Your task to perform on an android device: move an email to a new category in the gmail app Image 0: 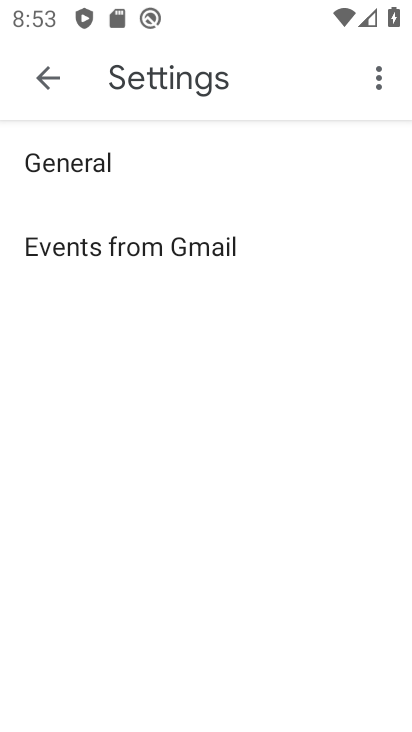
Step 0: press home button
Your task to perform on an android device: move an email to a new category in the gmail app Image 1: 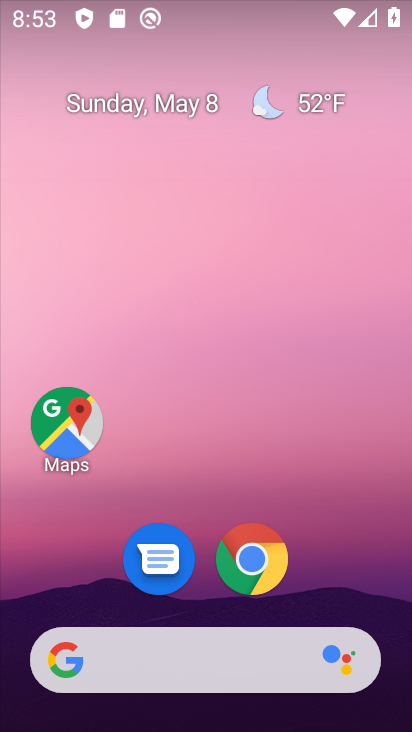
Step 1: drag from (234, 480) to (201, 10)
Your task to perform on an android device: move an email to a new category in the gmail app Image 2: 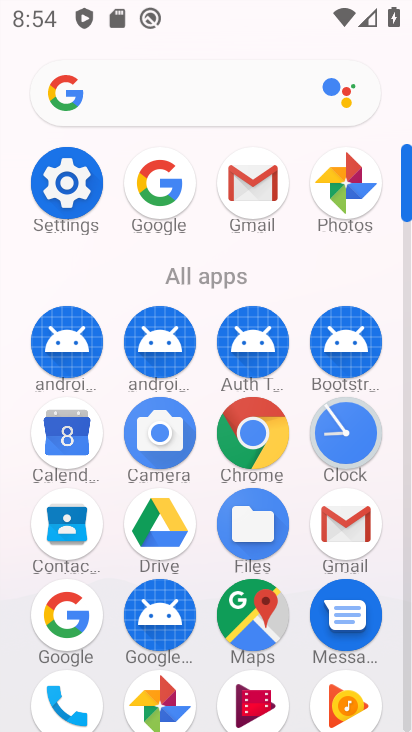
Step 2: click (341, 525)
Your task to perform on an android device: move an email to a new category in the gmail app Image 3: 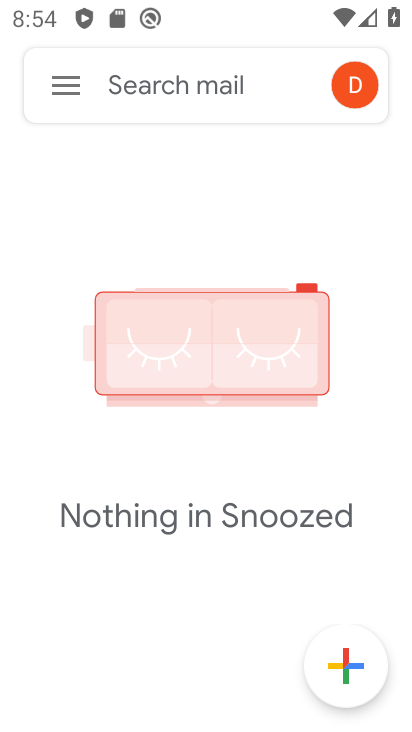
Step 3: click (54, 92)
Your task to perform on an android device: move an email to a new category in the gmail app Image 4: 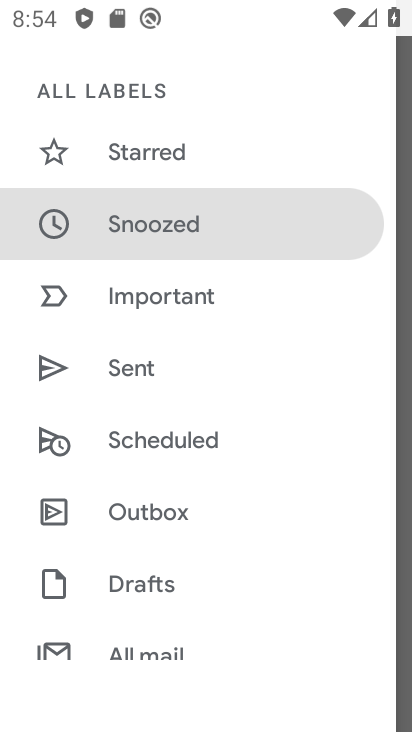
Step 4: drag from (188, 195) to (221, 644)
Your task to perform on an android device: move an email to a new category in the gmail app Image 5: 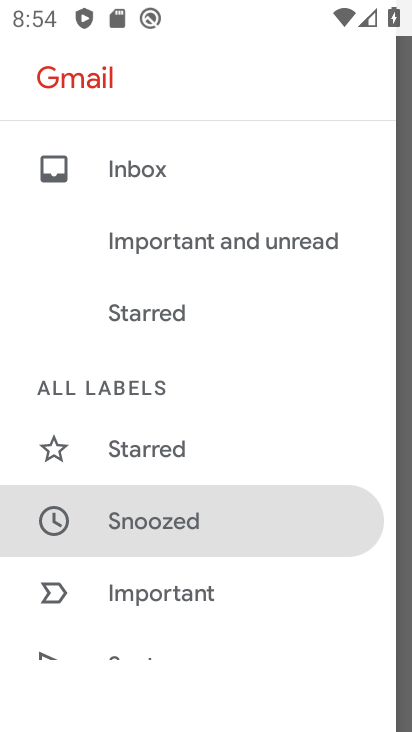
Step 5: click (157, 162)
Your task to perform on an android device: move an email to a new category in the gmail app Image 6: 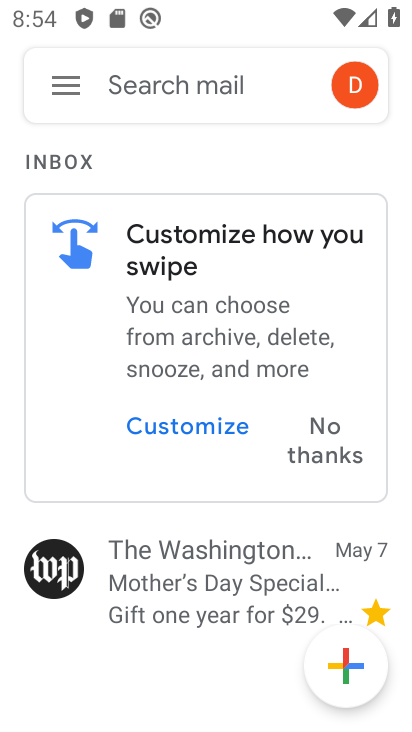
Step 6: click (202, 558)
Your task to perform on an android device: move an email to a new category in the gmail app Image 7: 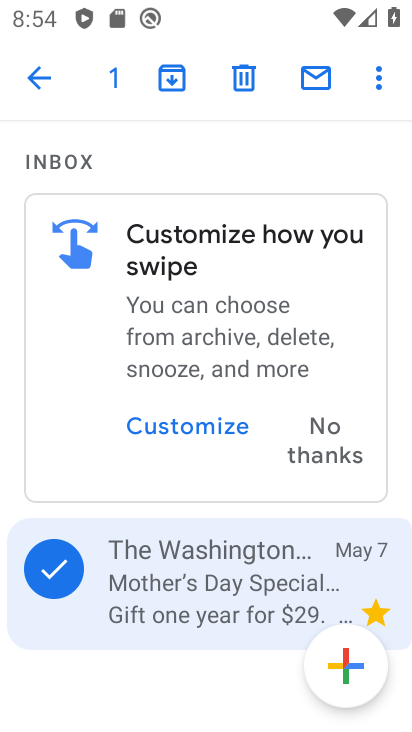
Step 7: click (395, 72)
Your task to perform on an android device: move an email to a new category in the gmail app Image 8: 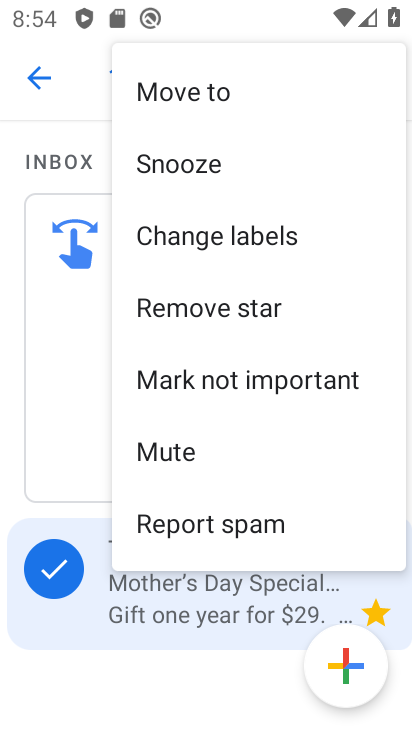
Step 8: click (226, 116)
Your task to perform on an android device: move an email to a new category in the gmail app Image 9: 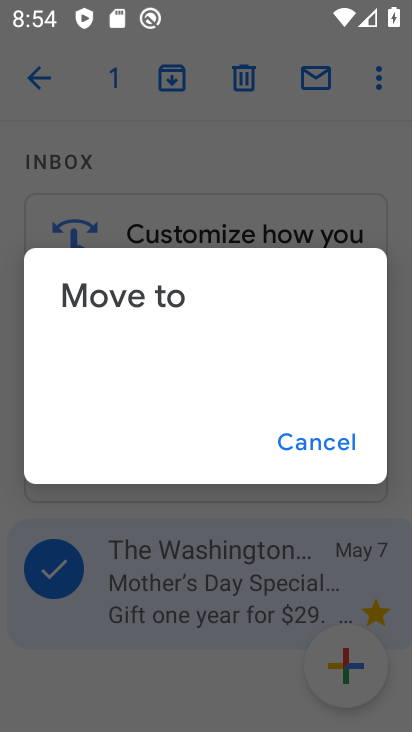
Step 9: click (265, 365)
Your task to perform on an android device: move an email to a new category in the gmail app Image 10: 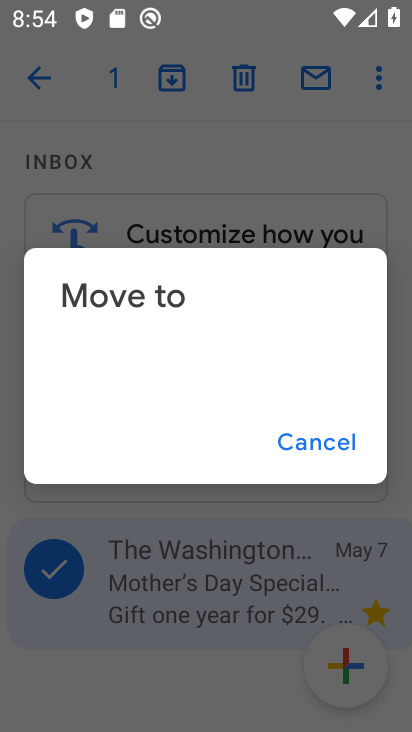
Step 10: click (331, 452)
Your task to perform on an android device: move an email to a new category in the gmail app Image 11: 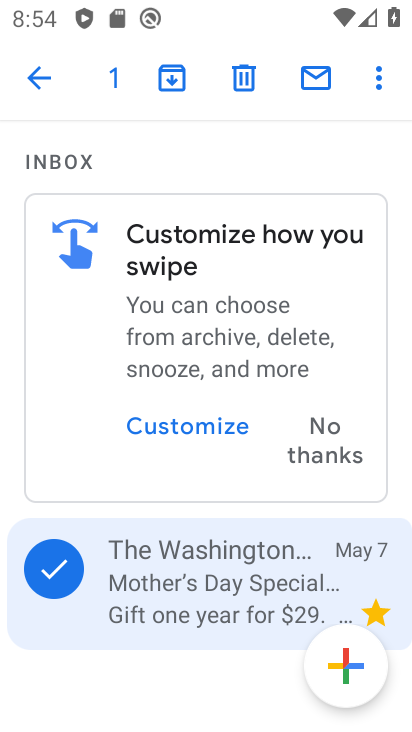
Step 11: drag from (259, 558) to (220, 89)
Your task to perform on an android device: move an email to a new category in the gmail app Image 12: 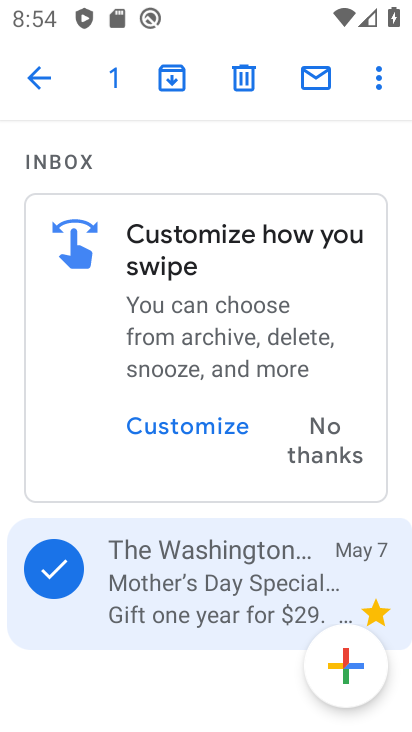
Step 12: click (34, 66)
Your task to perform on an android device: move an email to a new category in the gmail app Image 13: 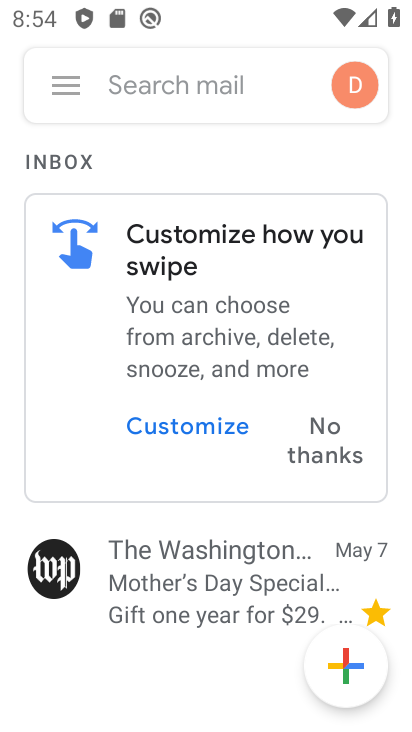
Step 13: click (35, 66)
Your task to perform on an android device: move an email to a new category in the gmail app Image 14: 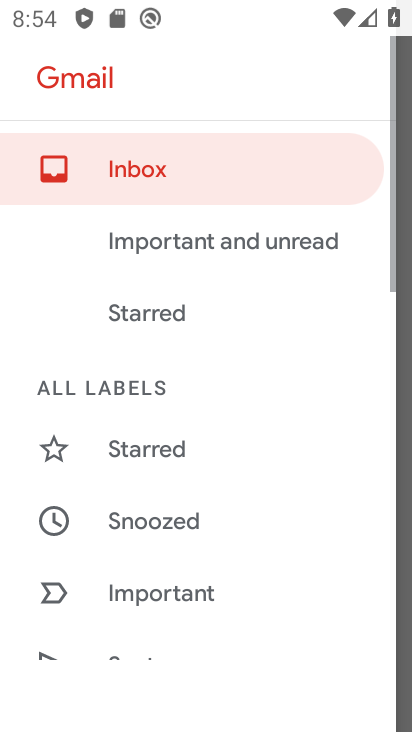
Step 14: drag from (241, 589) to (219, 168)
Your task to perform on an android device: move an email to a new category in the gmail app Image 15: 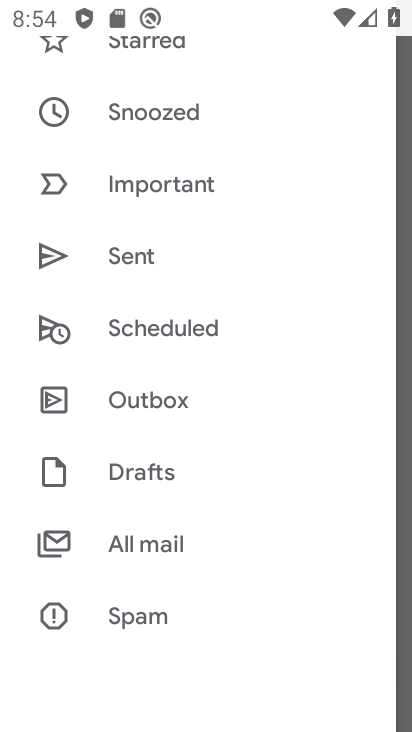
Step 15: click (174, 538)
Your task to perform on an android device: move an email to a new category in the gmail app Image 16: 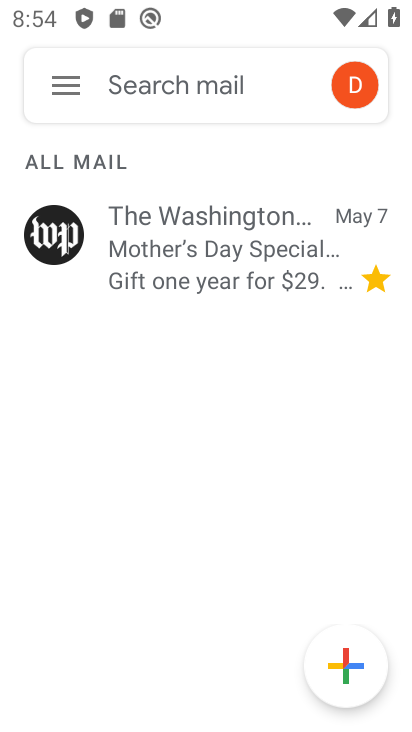
Step 16: click (185, 254)
Your task to perform on an android device: move an email to a new category in the gmail app Image 17: 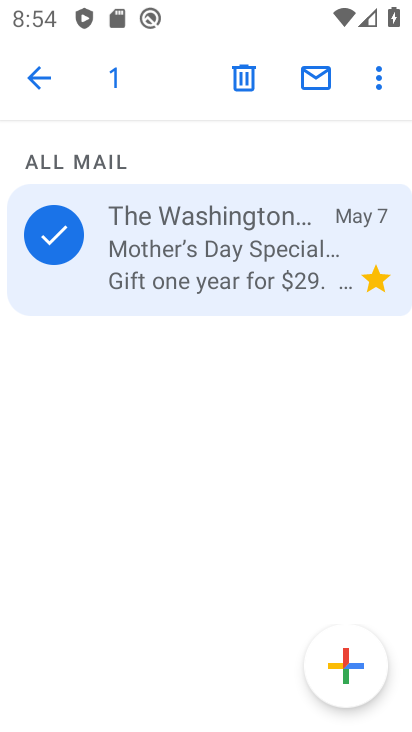
Step 17: click (372, 65)
Your task to perform on an android device: move an email to a new category in the gmail app Image 18: 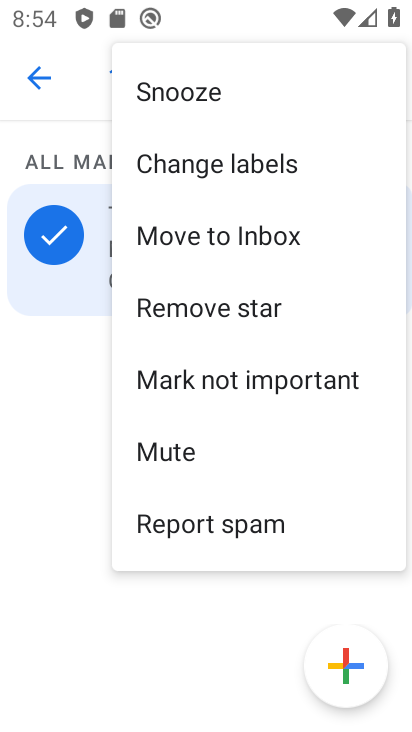
Step 18: click (192, 248)
Your task to perform on an android device: move an email to a new category in the gmail app Image 19: 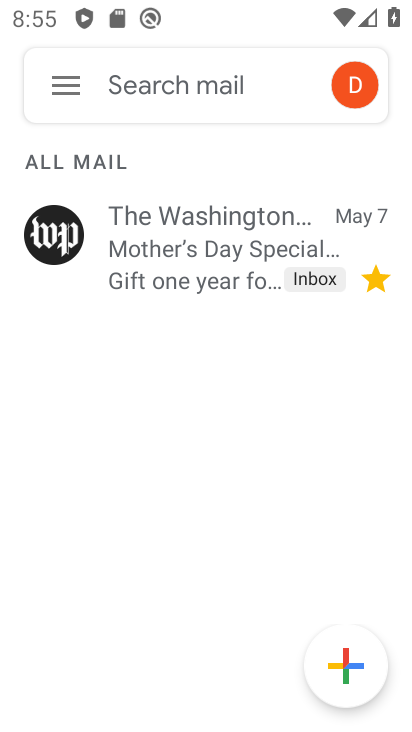
Step 19: task complete